Your task to perform on an android device: Open network settings Image 0: 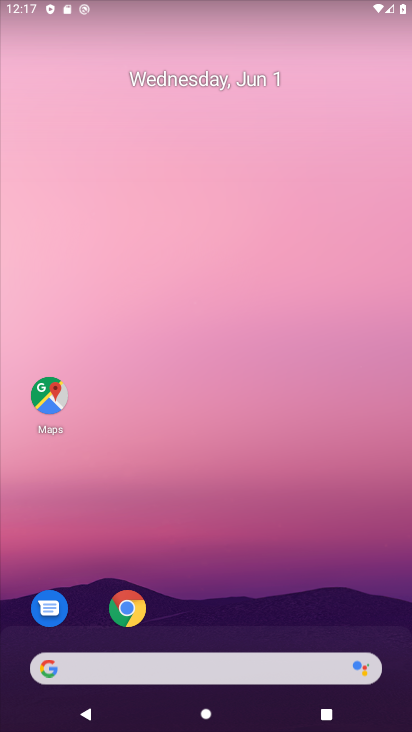
Step 0: drag from (299, 562) to (311, 10)
Your task to perform on an android device: Open network settings Image 1: 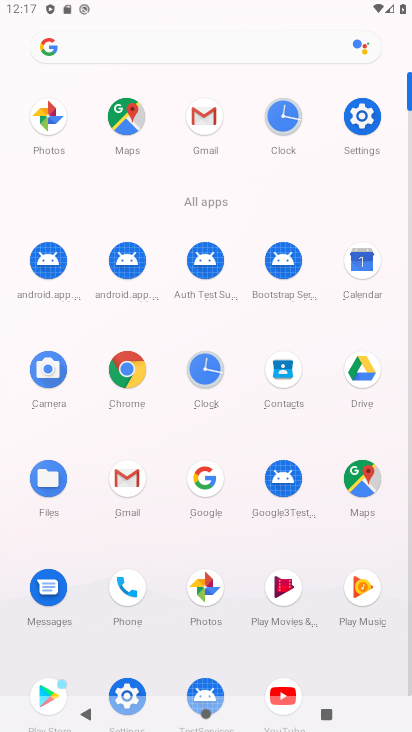
Step 1: click (355, 115)
Your task to perform on an android device: Open network settings Image 2: 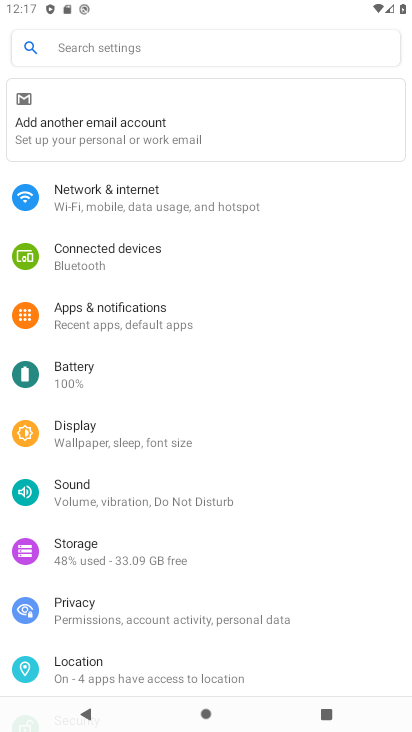
Step 2: click (93, 191)
Your task to perform on an android device: Open network settings Image 3: 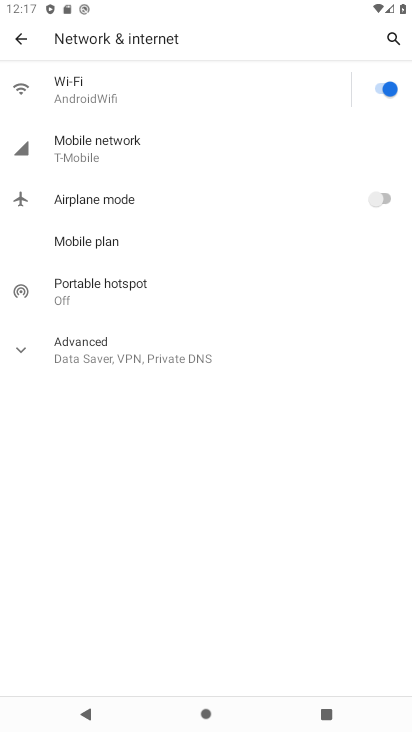
Step 3: click (111, 144)
Your task to perform on an android device: Open network settings Image 4: 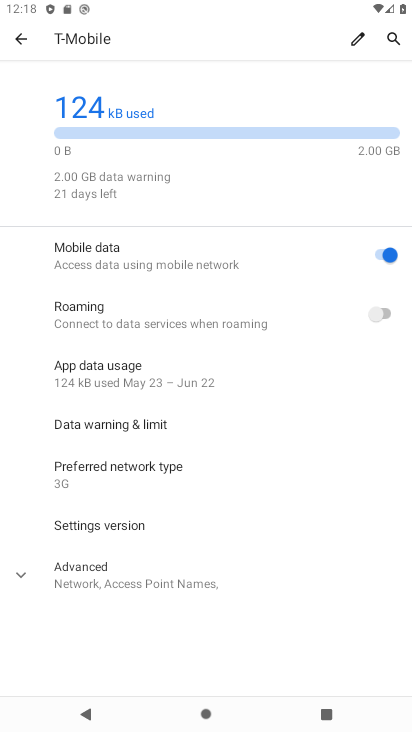
Step 4: task complete